Your task to perform on an android device: add a contact in the contacts app Image 0: 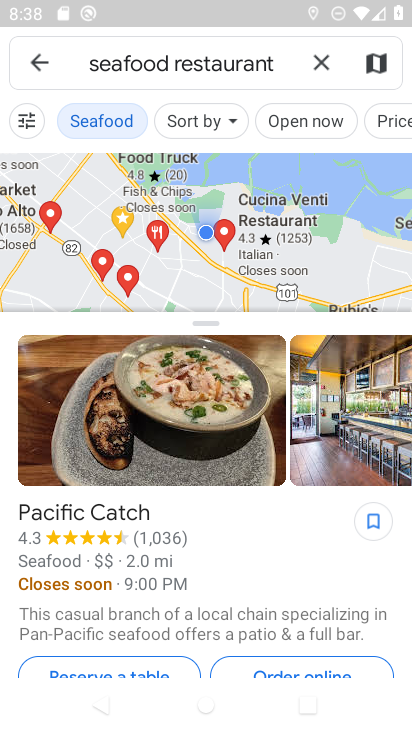
Step 0: press home button
Your task to perform on an android device: add a contact in the contacts app Image 1: 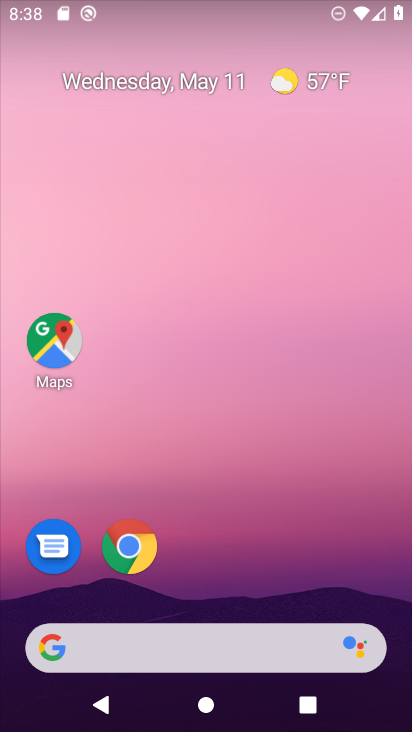
Step 1: drag from (236, 585) to (208, 260)
Your task to perform on an android device: add a contact in the contacts app Image 2: 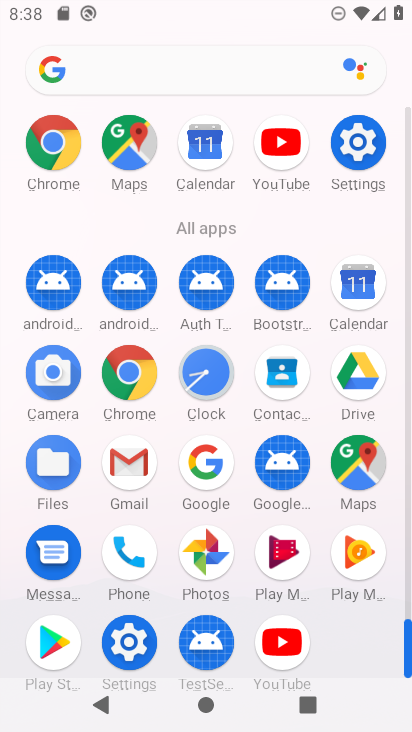
Step 2: click (280, 390)
Your task to perform on an android device: add a contact in the contacts app Image 3: 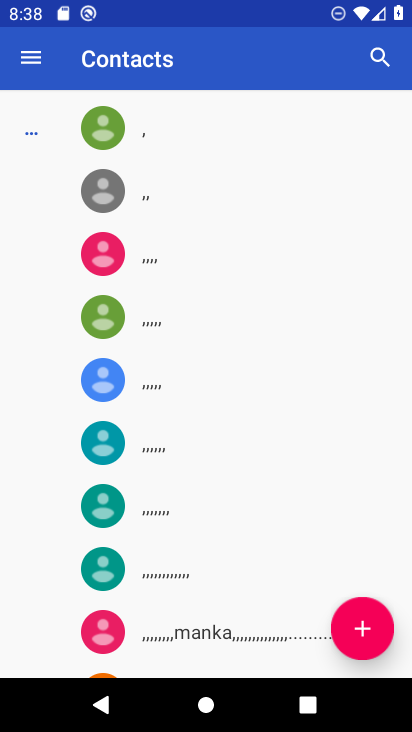
Step 3: click (368, 641)
Your task to perform on an android device: add a contact in the contacts app Image 4: 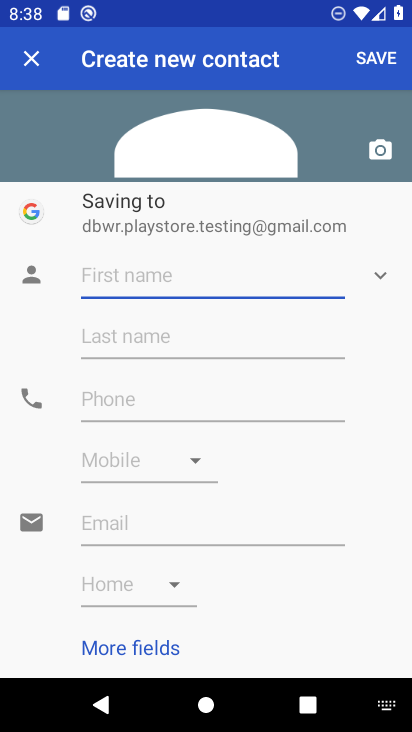
Step 4: type "kjiu"
Your task to perform on an android device: add a contact in the contacts app Image 5: 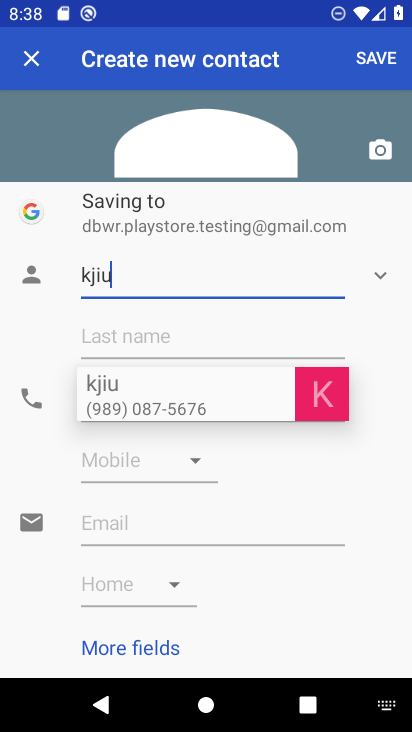
Step 5: click (296, 388)
Your task to perform on an android device: add a contact in the contacts app Image 6: 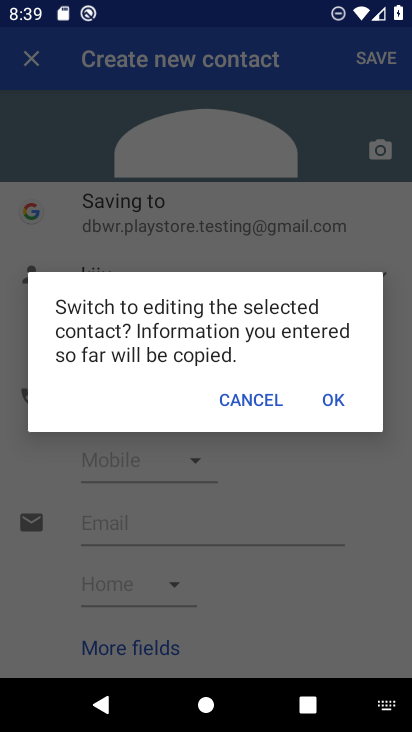
Step 6: click (249, 401)
Your task to perform on an android device: add a contact in the contacts app Image 7: 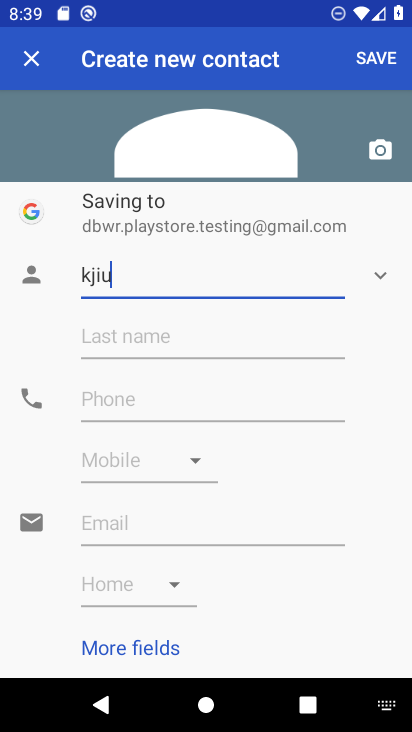
Step 7: click (144, 392)
Your task to perform on an android device: add a contact in the contacts app Image 8: 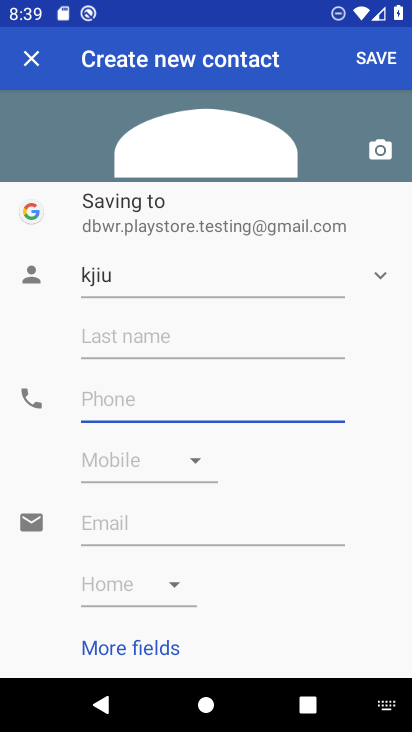
Step 8: type "875766489"
Your task to perform on an android device: add a contact in the contacts app Image 9: 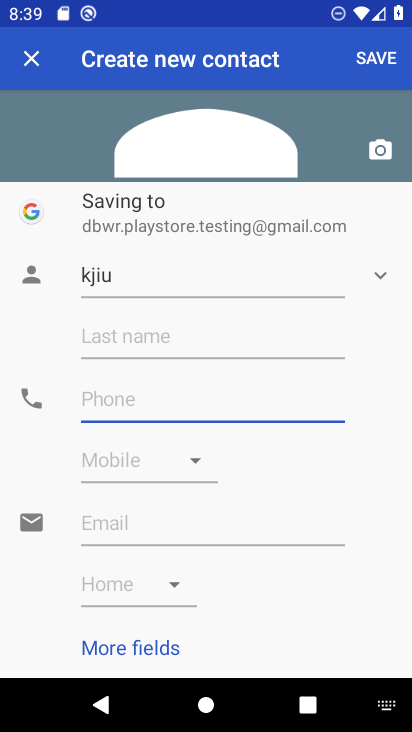
Step 9: click (394, 62)
Your task to perform on an android device: add a contact in the contacts app Image 10: 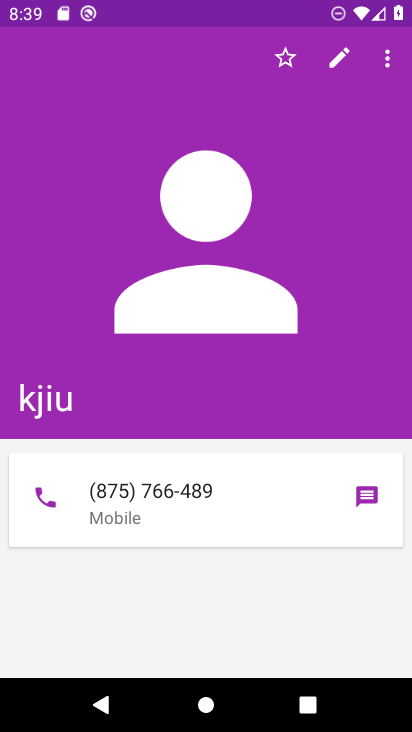
Step 10: task complete